Your task to perform on an android device: change timer sound Image 0: 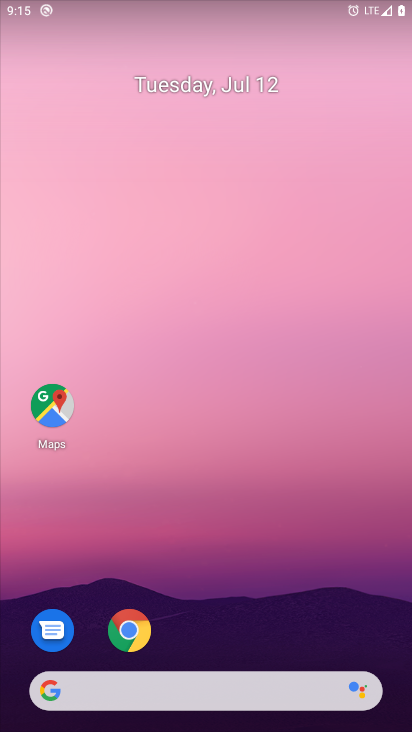
Step 0: press home button
Your task to perform on an android device: change timer sound Image 1: 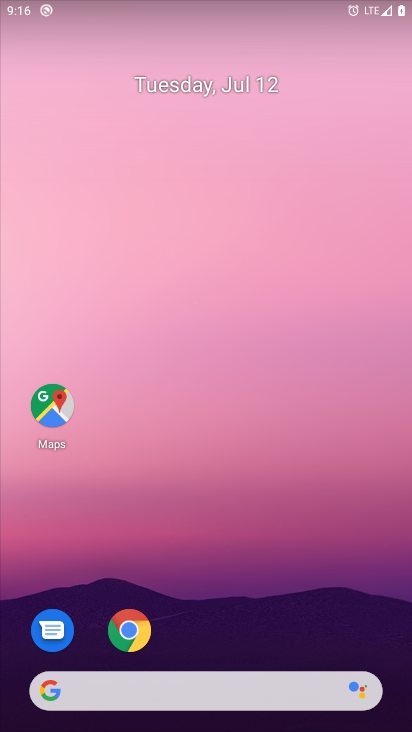
Step 1: drag from (234, 616) to (180, 91)
Your task to perform on an android device: change timer sound Image 2: 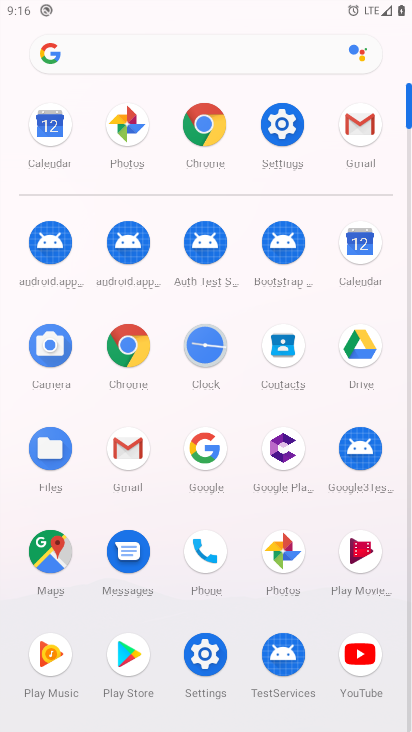
Step 2: click (205, 347)
Your task to perform on an android device: change timer sound Image 3: 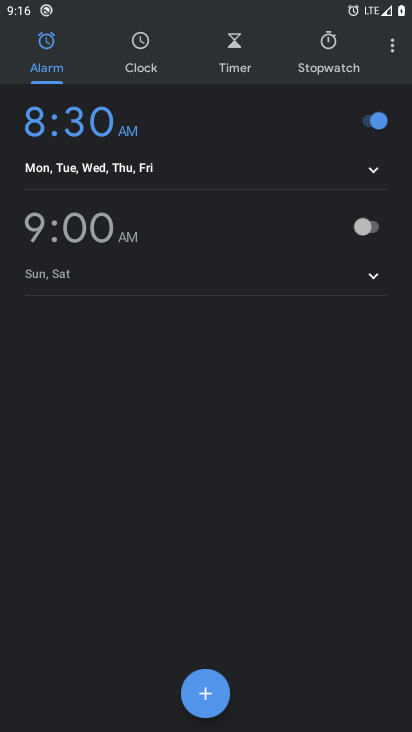
Step 3: click (384, 49)
Your task to perform on an android device: change timer sound Image 4: 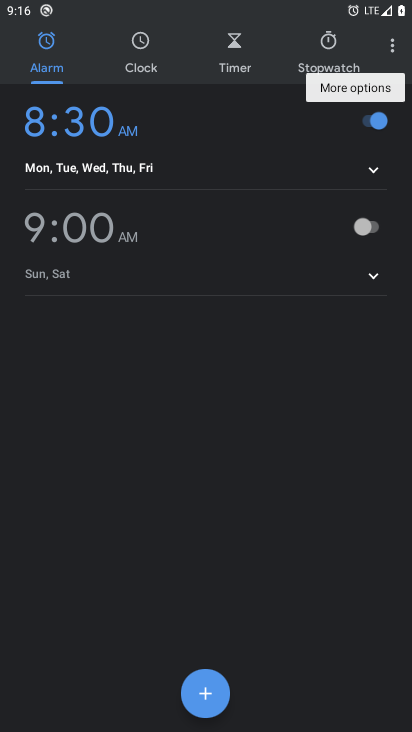
Step 4: click (390, 46)
Your task to perform on an android device: change timer sound Image 5: 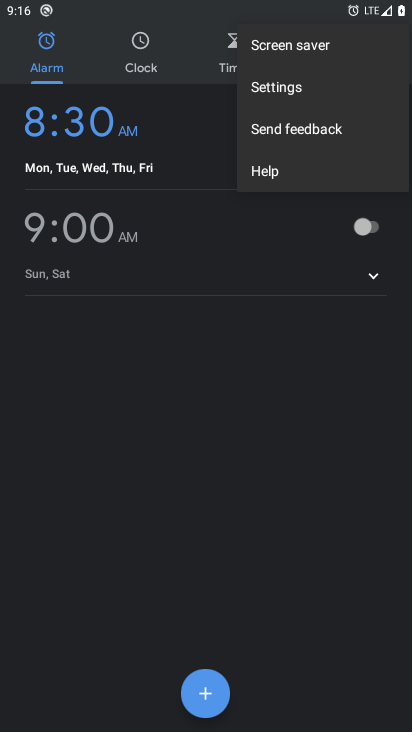
Step 5: click (276, 81)
Your task to perform on an android device: change timer sound Image 6: 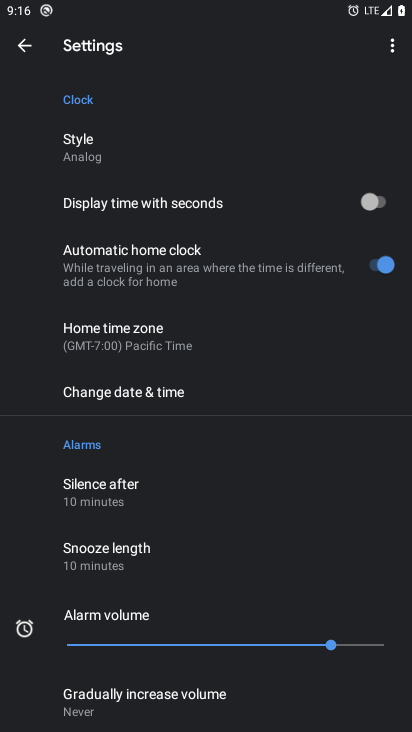
Step 6: drag from (231, 557) to (173, 205)
Your task to perform on an android device: change timer sound Image 7: 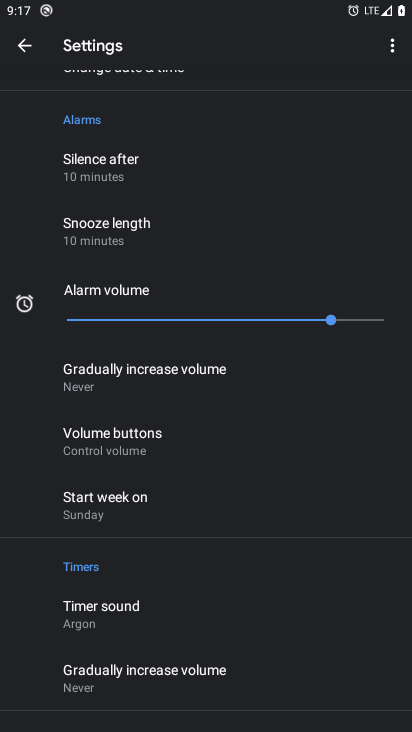
Step 7: click (109, 614)
Your task to perform on an android device: change timer sound Image 8: 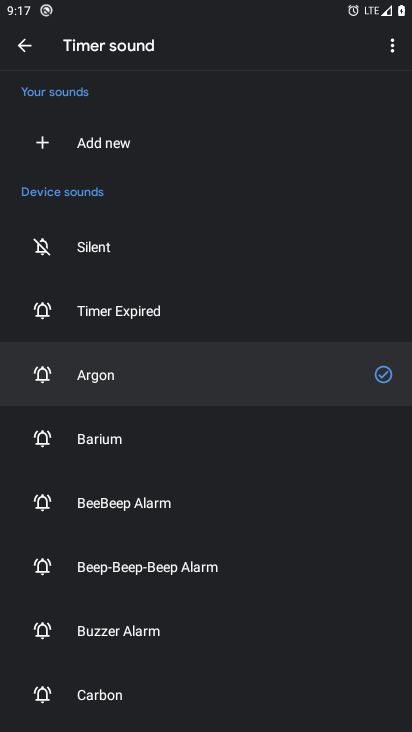
Step 8: click (114, 635)
Your task to perform on an android device: change timer sound Image 9: 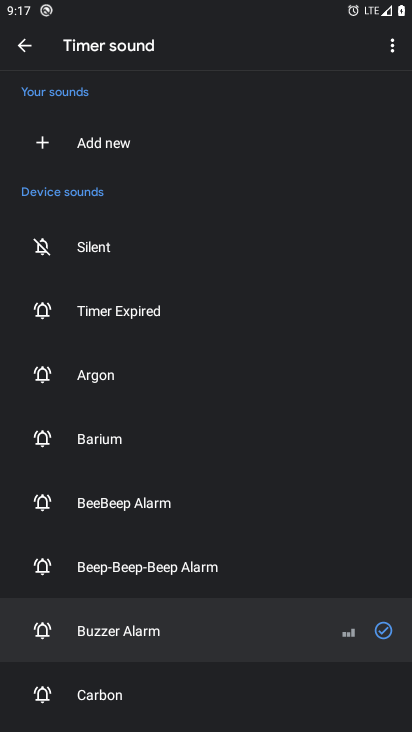
Step 9: task complete